Your task to perform on an android device: Go to location settings Image 0: 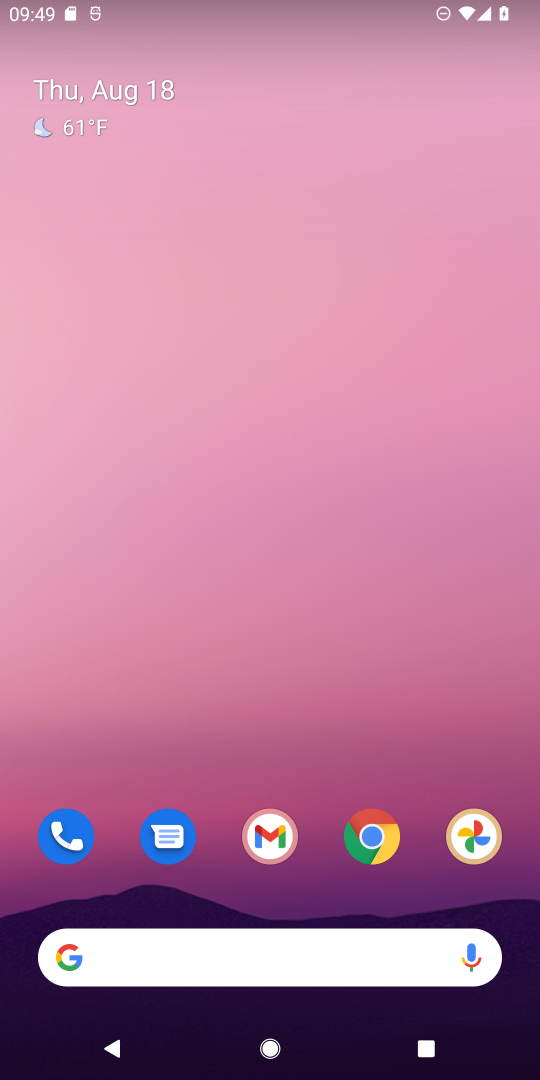
Step 0: drag from (316, 769) to (328, 58)
Your task to perform on an android device: Go to location settings Image 1: 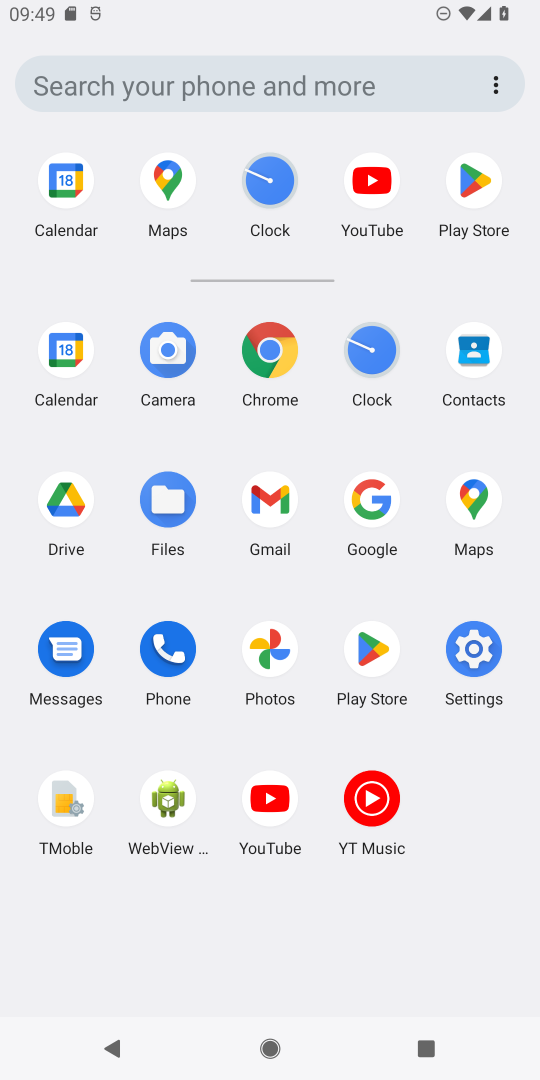
Step 1: click (477, 638)
Your task to perform on an android device: Go to location settings Image 2: 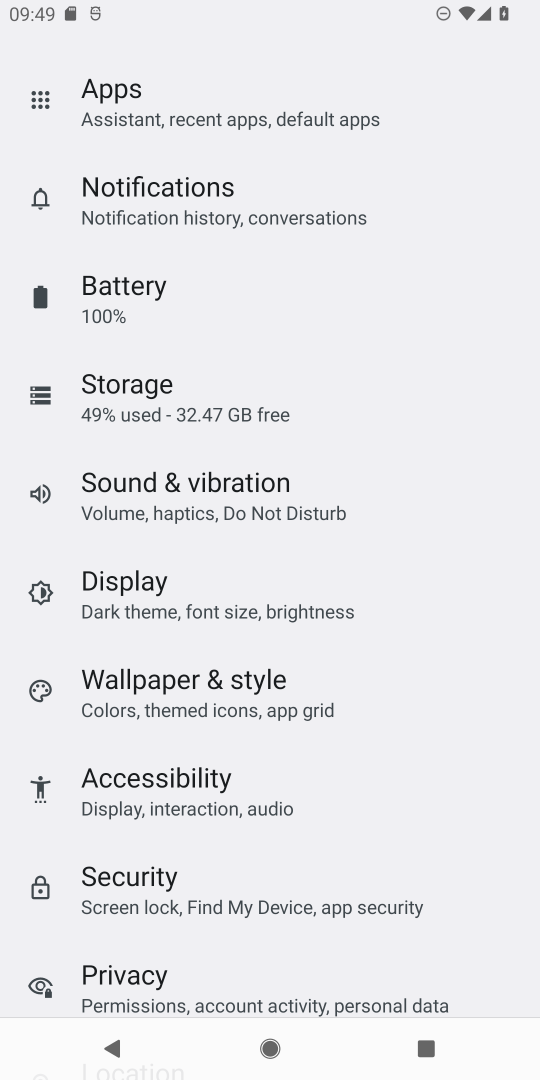
Step 2: drag from (320, 733) to (324, 221)
Your task to perform on an android device: Go to location settings Image 3: 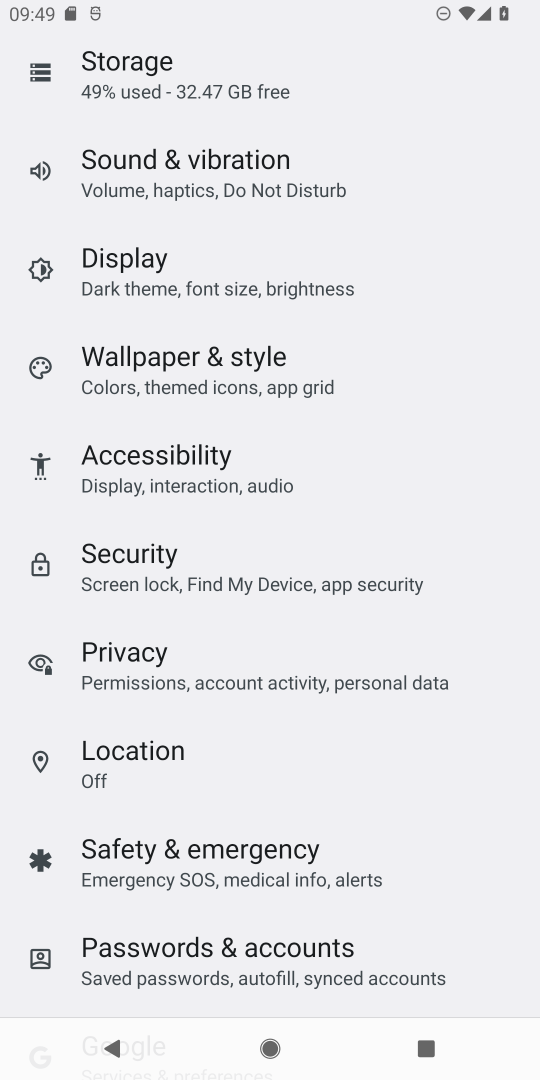
Step 3: click (152, 755)
Your task to perform on an android device: Go to location settings Image 4: 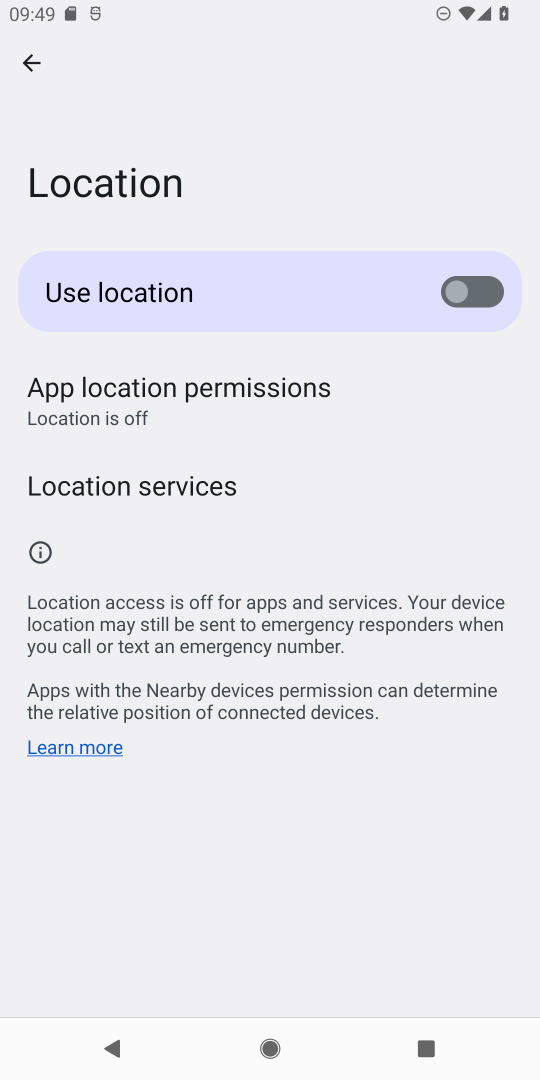
Step 4: task complete